Your task to perform on an android device: change the clock display to analog Image 0: 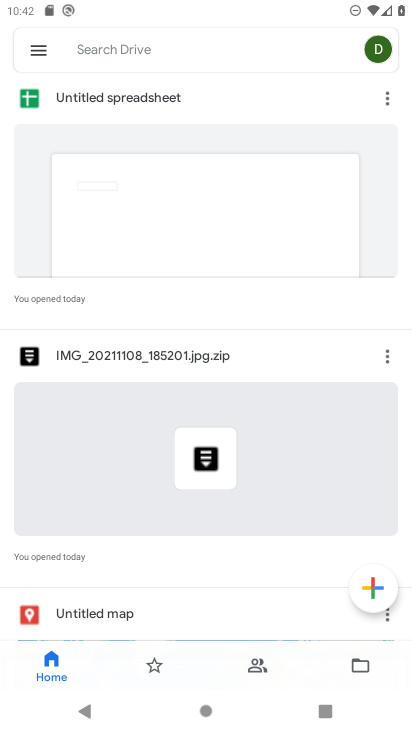
Step 0: press home button
Your task to perform on an android device: change the clock display to analog Image 1: 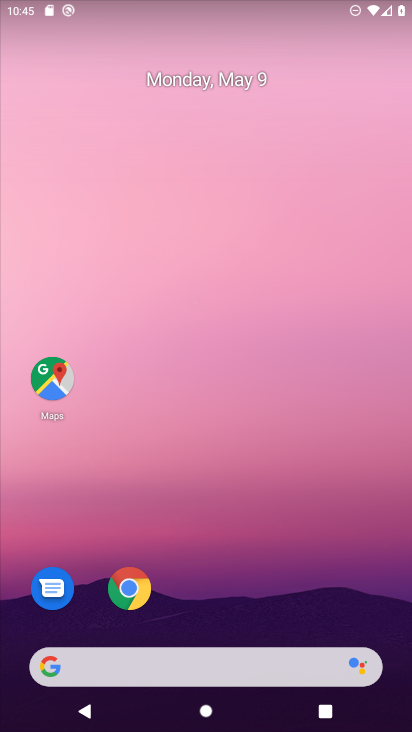
Step 1: drag from (318, 625) to (278, 64)
Your task to perform on an android device: change the clock display to analog Image 2: 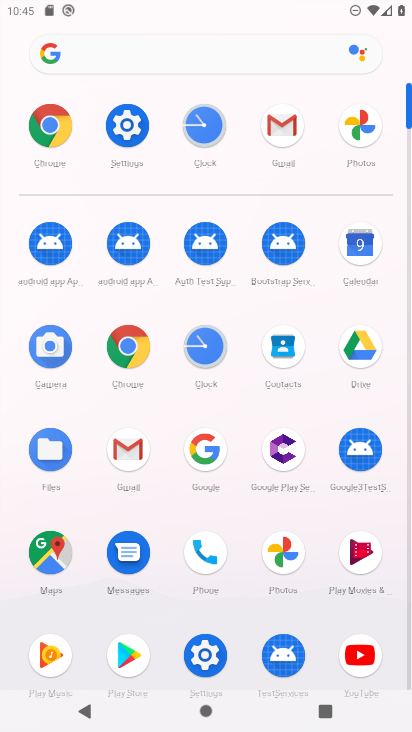
Step 2: click (134, 133)
Your task to perform on an android device: change the clock display to analog Image 3: 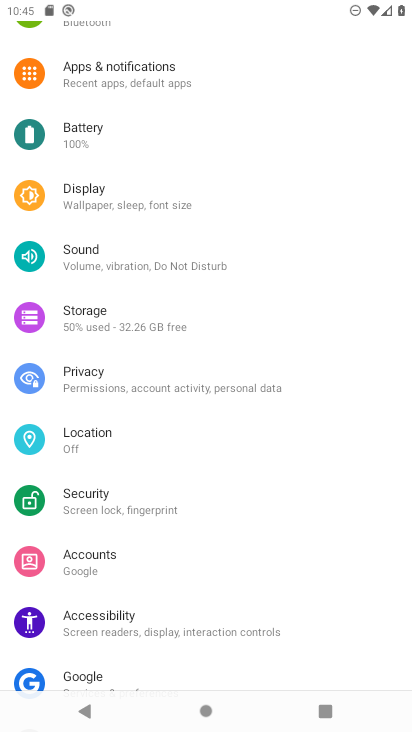
Step 3: drag from (184, 160) to (178, 450)
Your task to perform on an android device: change the clock display to analog Image 4: 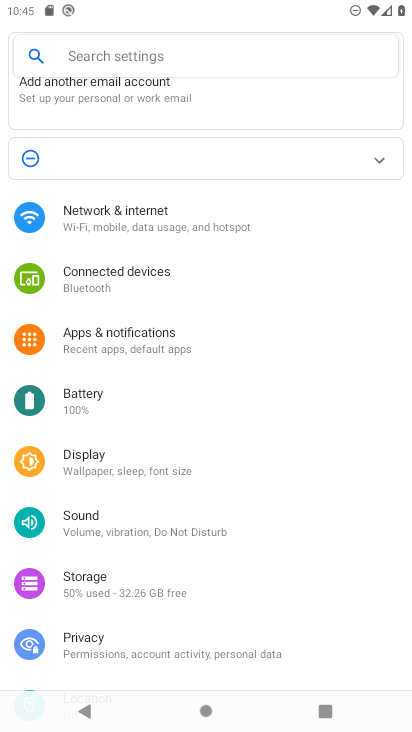
Step 4: press home button
Your task to perform on an android device: change the clock display to analog Image 5: 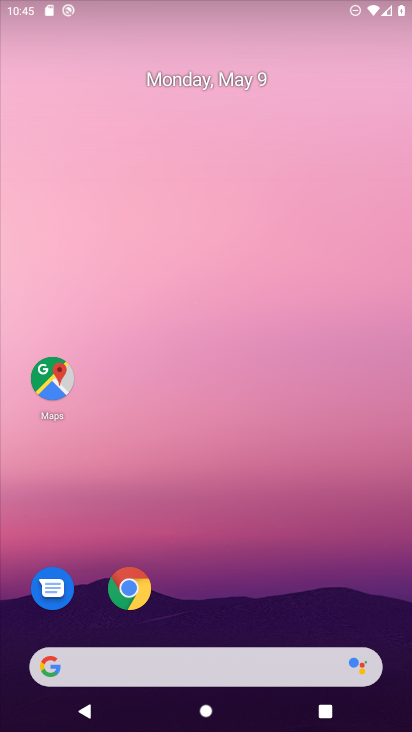
Step 5: drag from (249, 580) to (313, 89)
Your task to perform on an android device: change the clock display to analog Image 6: 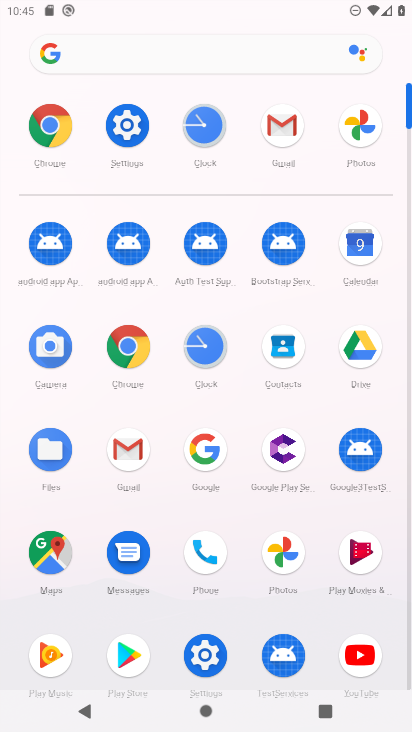
Step 6: click (219, 145)
Your task to perform on an android device: change the clock display to analog Image 7: 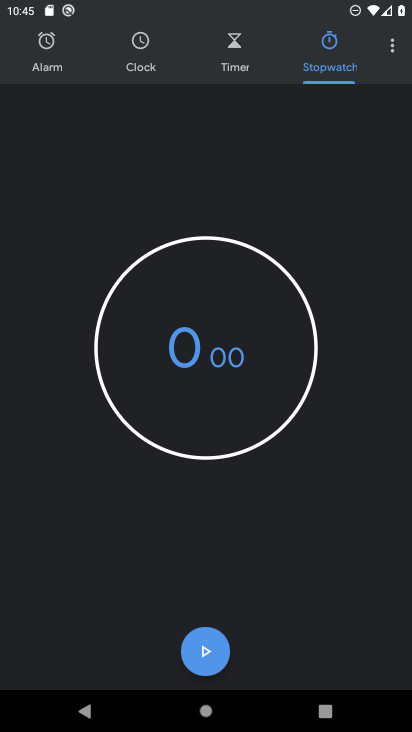
Step 7: click (405, 51)
Your task to perform on an android device: change the clock display to analog Image 8: 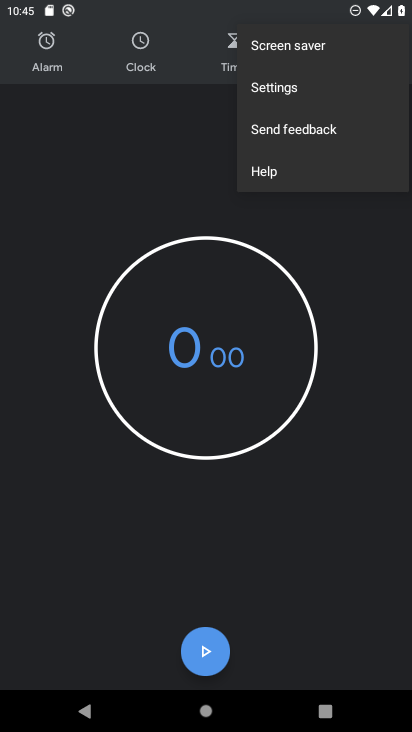
Step 8: click (326, 75)
Your task to perform on an android device: change the clock display to analog Image 9: 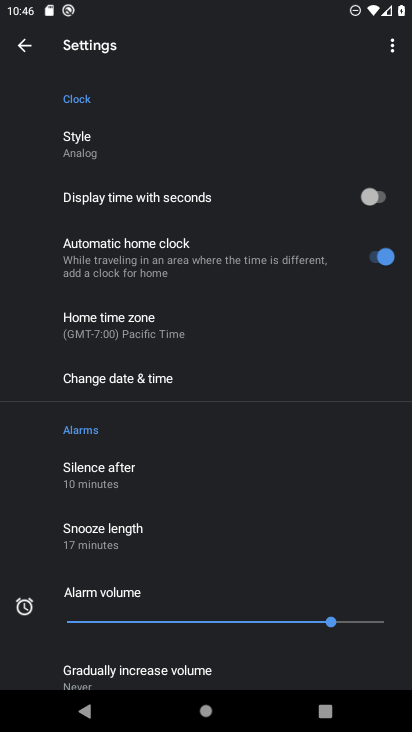
Step 9: task complete